Your task to perform on an android device: Go to Amazon Image 0: 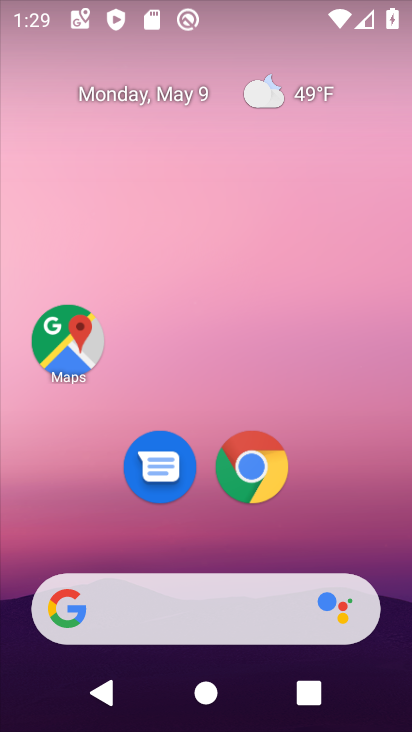
Step 0: drag from (373, 512) to (373, 168)
Your task to perform on an android device: Go to Amazon Image 1: 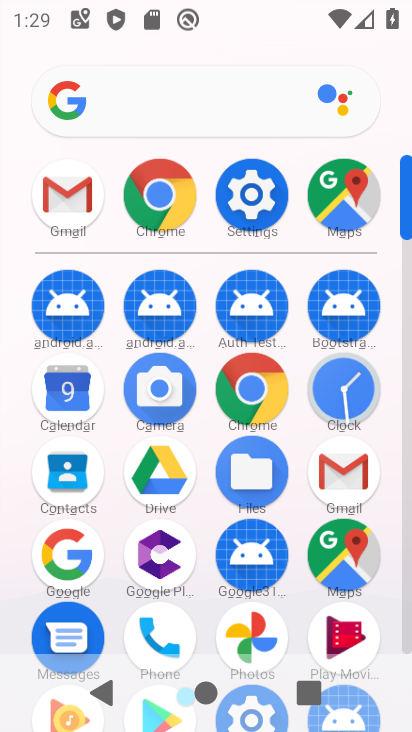
Step 1: click (184, 213)
Your task to perform on an android device: Go to Amazon Image 2: 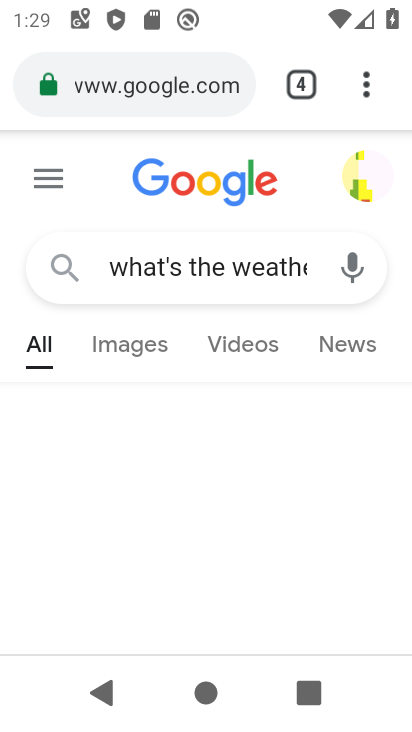
Step 2: click (181, 101)
Your task to perform on an android device: Go to Amazon Image 3: 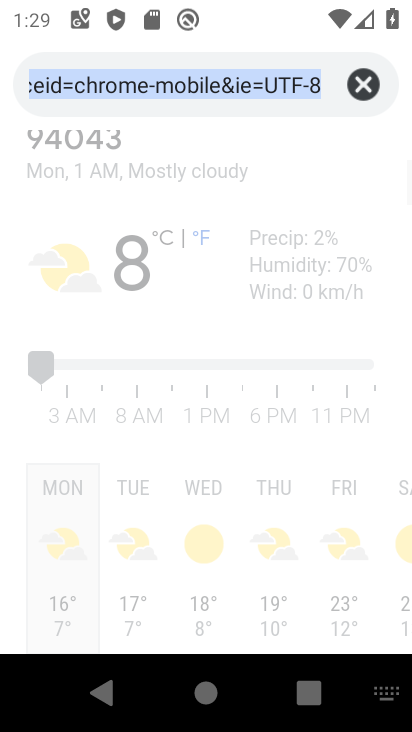
Step 3: click (361, 92)
Your task to perform on an android device: Go to Amazon Image 4: 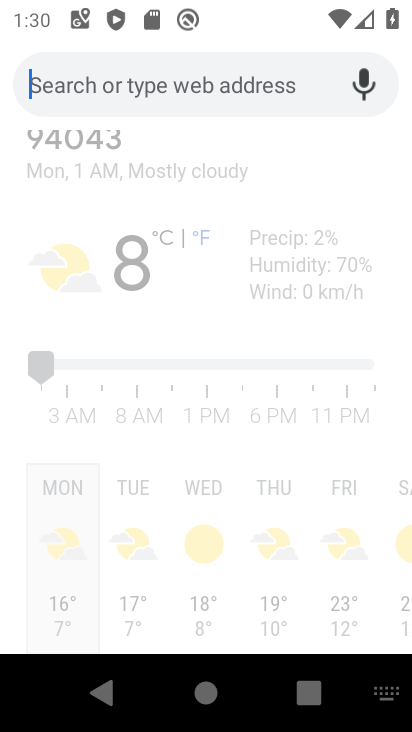
Step 4: type "amozon.com"
Your task to perform on an android device: Go to Amazon Image 5: 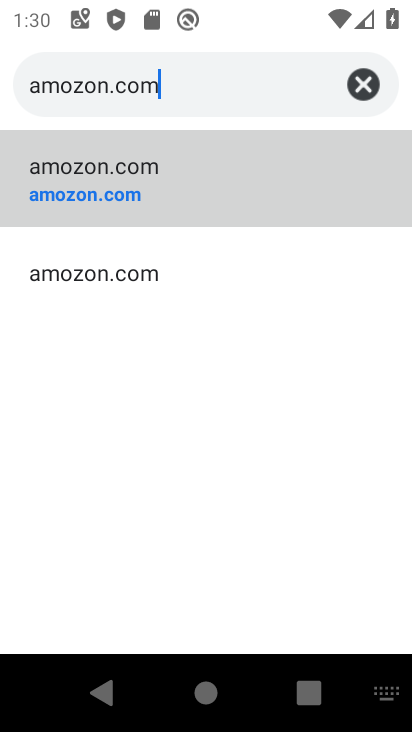
Step 5: click (192, 161)
Your task to perform on an android device: Go to Amazon Image 6: 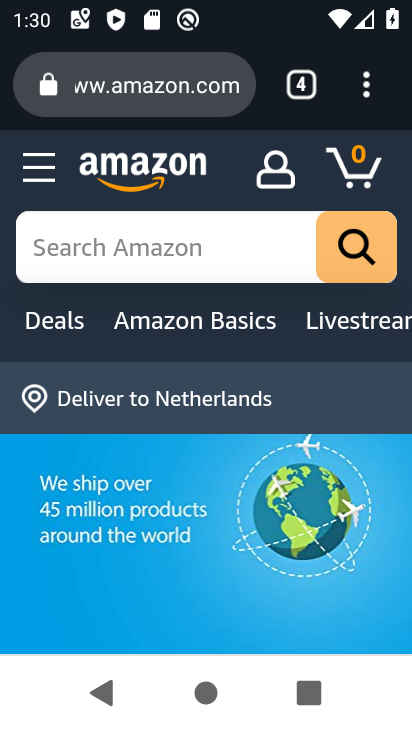
Step 6: task complete